Your task to perform on an android device: search for starred emails in the gmail app Image 0: 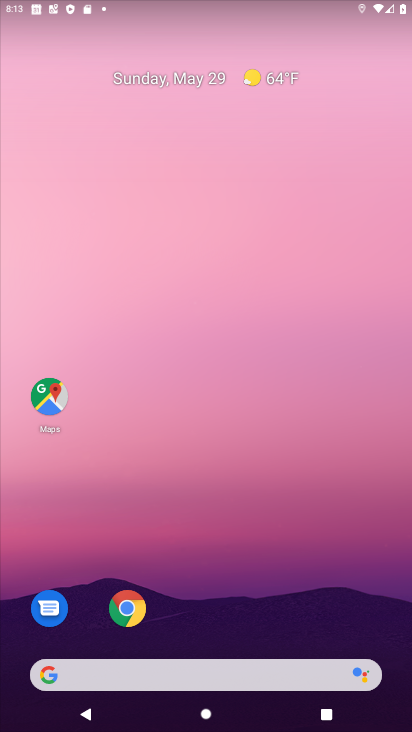
Step 0: drag from (221, 524) to (163, 100)
Your task to perform on an android device: search for starred emails in the gmail app Image 1: 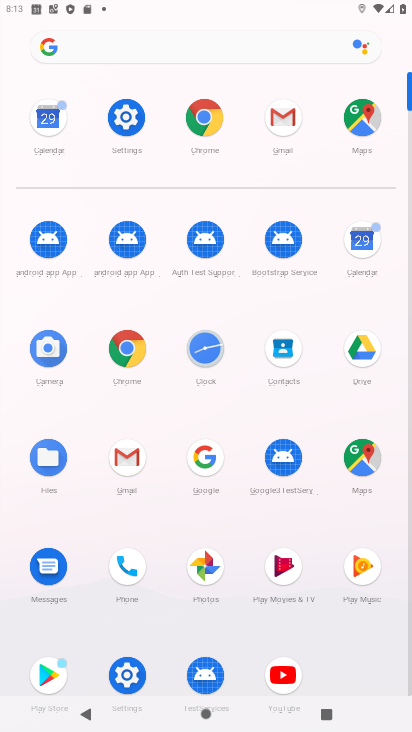
Step 1: click (290, 122)
Your task to perform on an android device: search for starred emails in the gmail app Image 2: 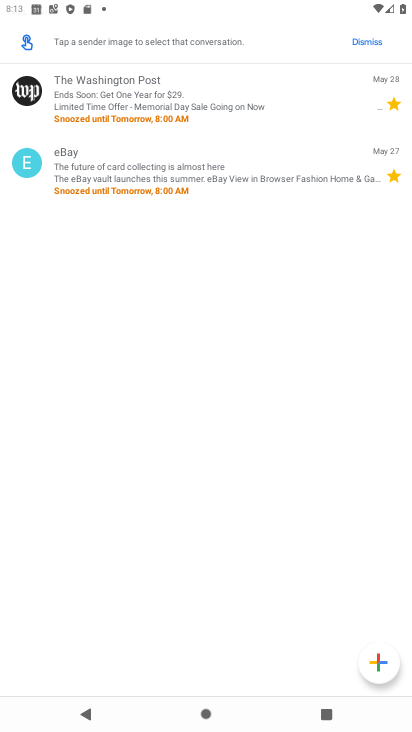
Step 2: press back button
Your task to perform on an android device: search for starred emails in the gmail app Image 3: 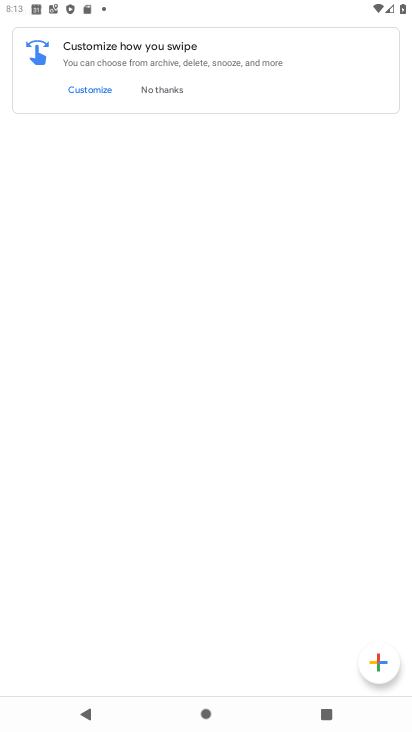
Step 3: drag from (278, 197) to (410, 659)
Your task to perform on an android device: search for starred emails in the gmail app Image 4: 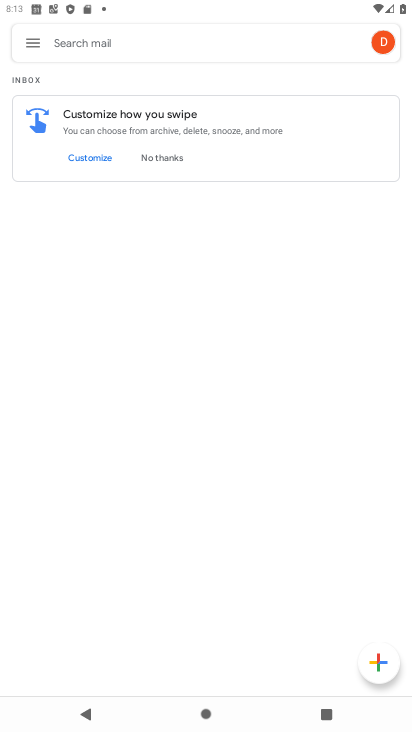
Step 4: click (34, 45)
Your task to perform on an android device: search for starred emails in the gmail app Image 5: 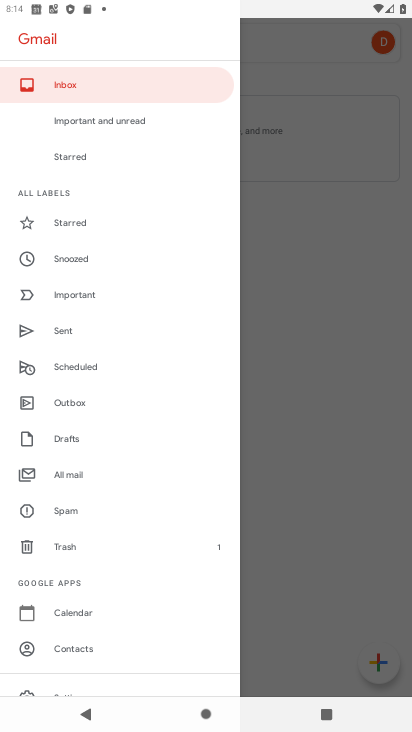
Step 5: click (72, 220)
Your task to perform on an android device: search for starred emails in the gmail app Image 6: 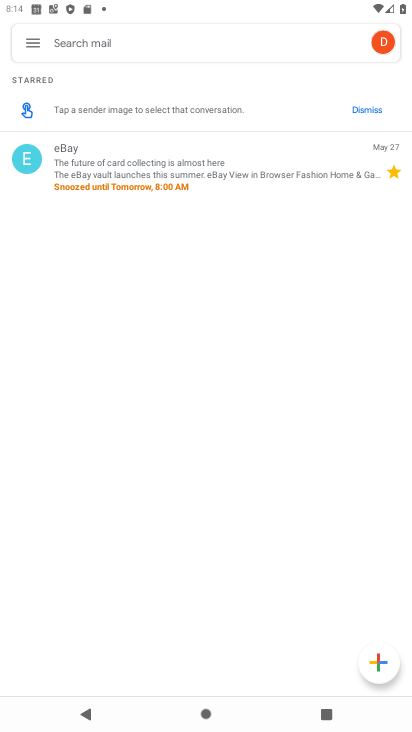
Step 6: task complete